Your task to perform on an android device: Show me productivity apps on the Play Store Image 0: 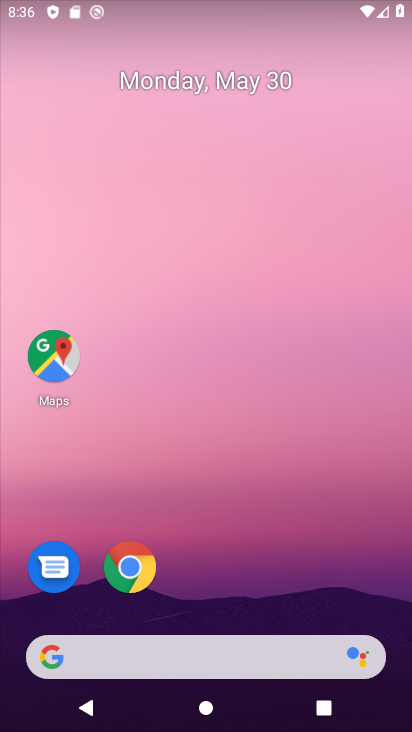
Step 0: drag from (228, 603) to (189, 12)
Your task to perform on an android device: Show me productivity apps on the Play Store Image 1: 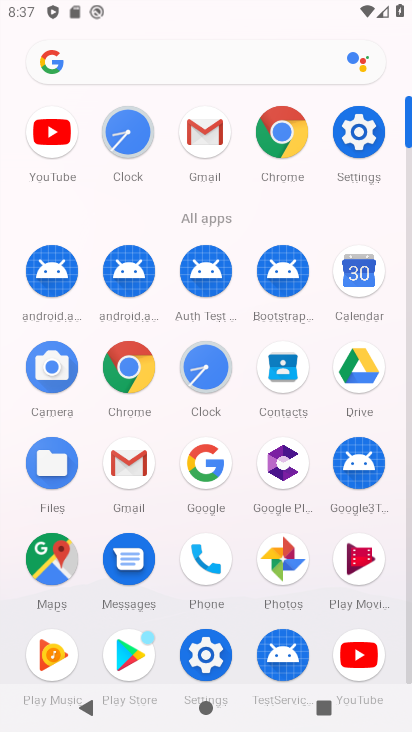
Step 1: click (138, 653)
Your task to perform on an android device: Show me productivity apps on the Play Store Image 2: 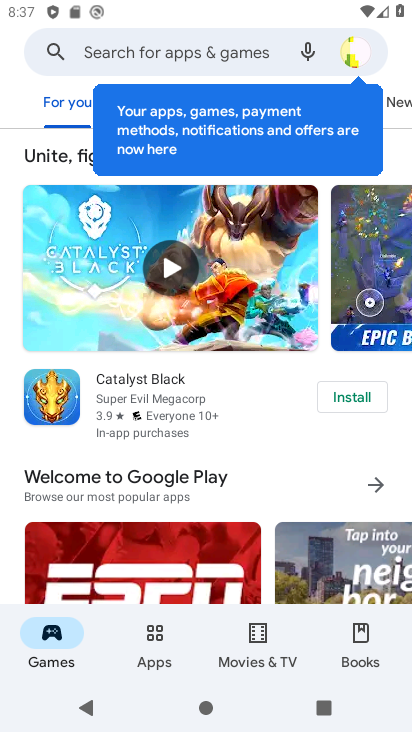
Step 2: click (153, 649)
Your task to perform on an android device: Show me productivity apps on the Play Store Image 3: 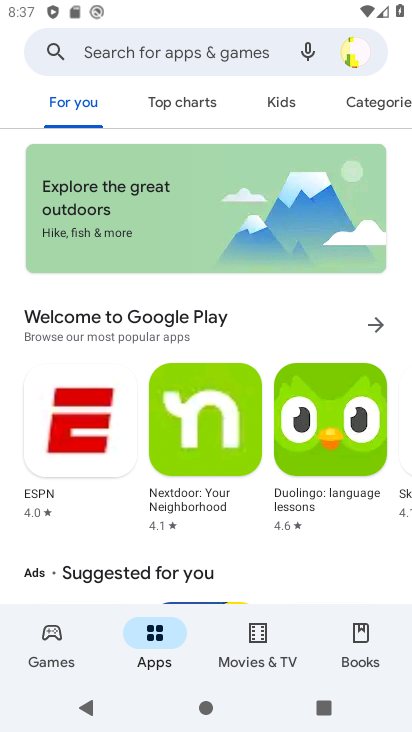
Step 3: click (383, 105)
Your task to perform on an android device: Show me productivity apps on the Play Store Image 4: 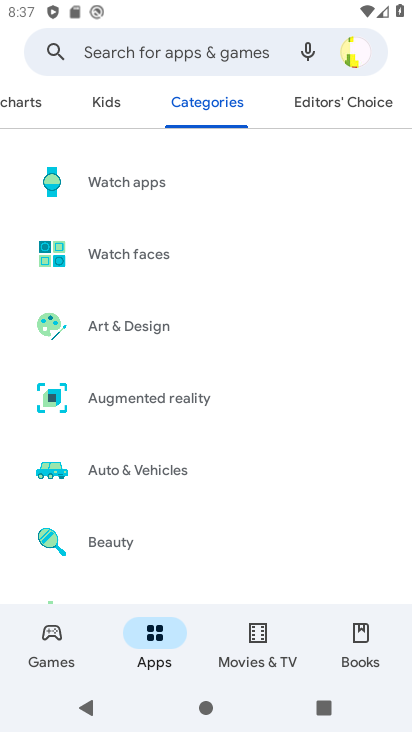
Step 4: drag from (220, 529) to (171, 113)
Your task to perform on an android device: Show me productivity apps on the Play Store Image 5: 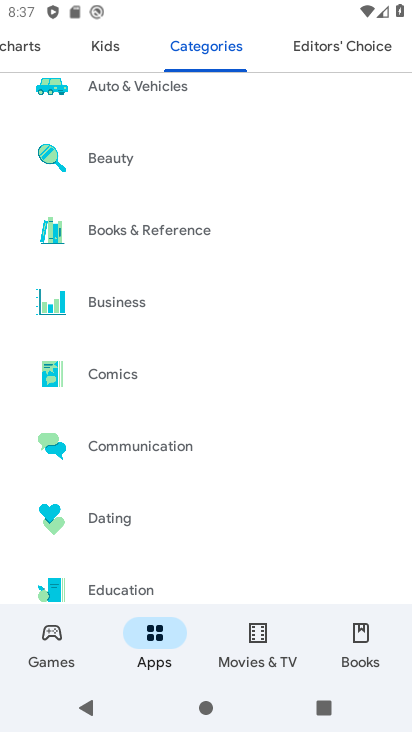
Step 5: drag from (228, 523) to (208, 101)
Your task to perform on an android device: Show me productivity apps on the Play Store Image 6: 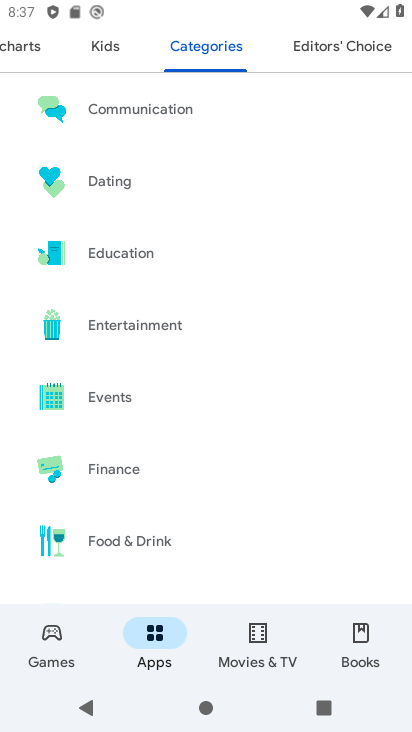
Step 6: drag from (199, 554) to (167, 237)
Your task to perform on an android device: Show me productivity apps on the Play Store Image 7: 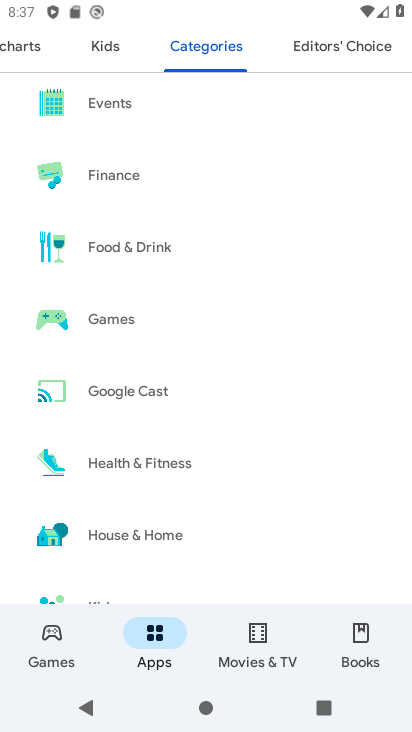
Step 7: drag from (190, 485) to (164, 103)
Your task to perform on an android device: Show me productivity apps on the Play Store Image 8: 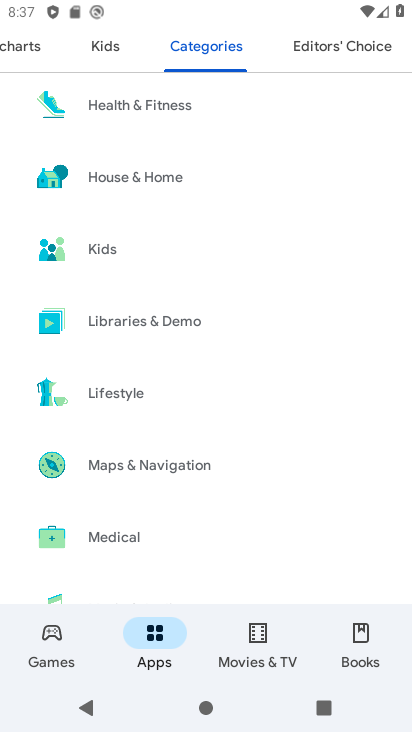
Step 8: drag from (177, 510) to (153, 123)
Your task to perform on an android device: Show me productivity apps on the Play Store Image 9: 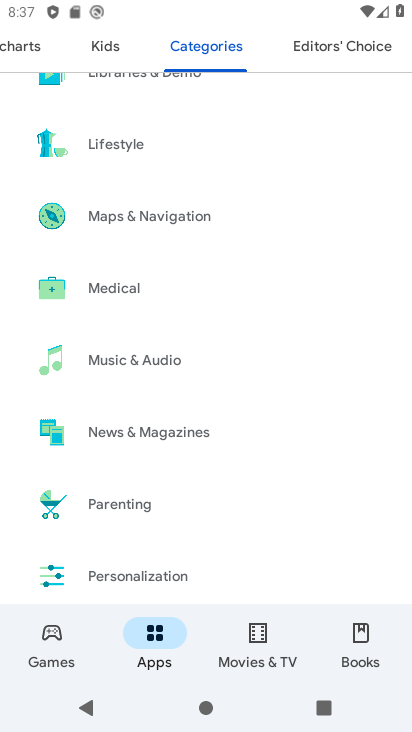
Step 9: drag from (207, 490) to (176, 227)
Your task to perform on an android device: Show me productivity apps on the Play Store Image 10: 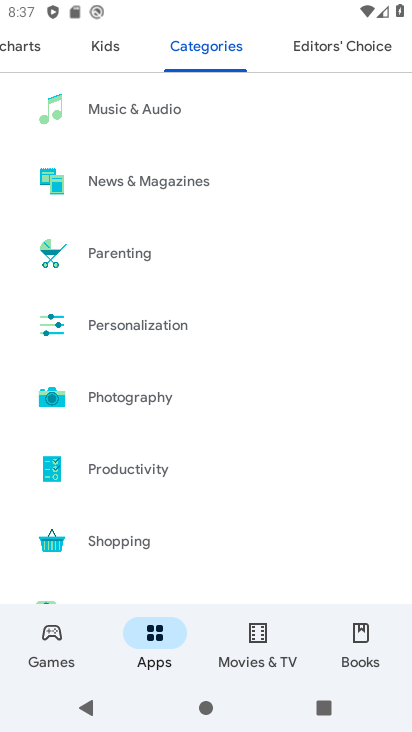
Step 10: click (160, 489)
Your task to perform on an android device: Show me productivity apps on the Play Store Image 11: 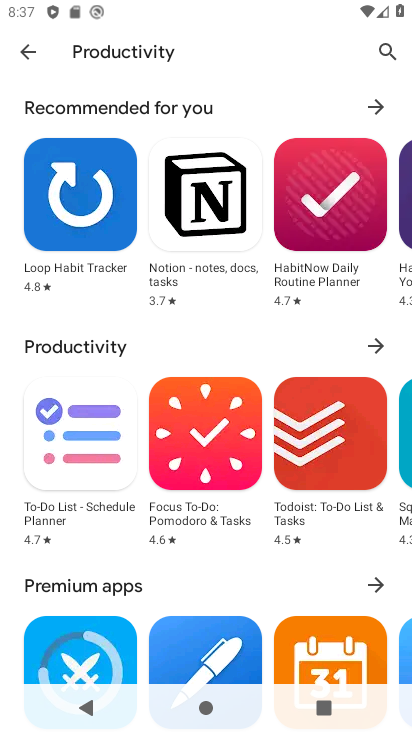
Step 11: task complete